Your task to perform on an android device: change the clock display to show seconds Image 0: 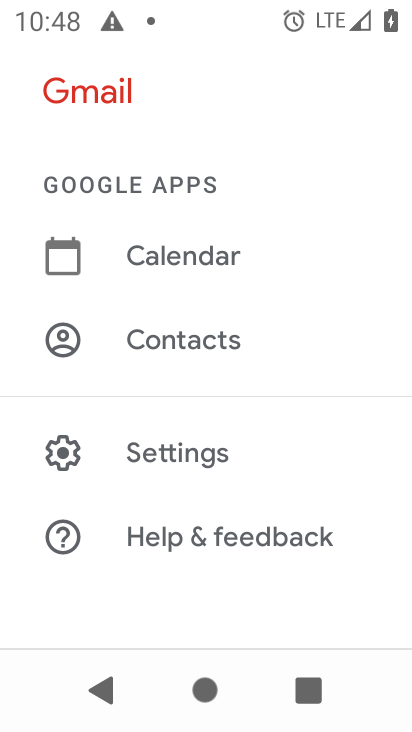
Step 0: press home button
Your task to perform on an android device: change the clock display to show seconds Image 1: 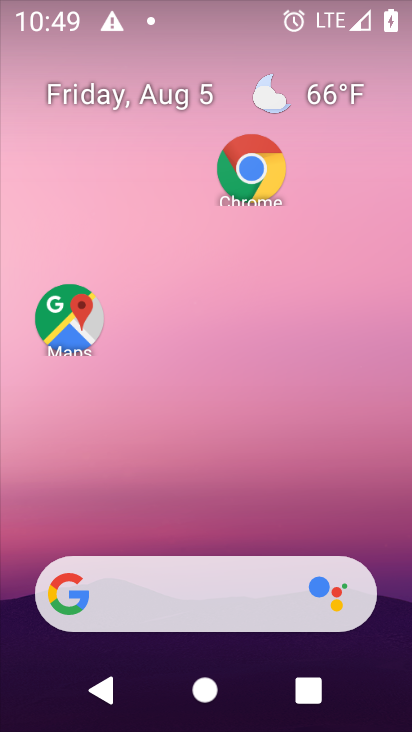
Step 1: drag from (206, 509) to (169, 146)
Your task to perform on an android device: change the clock display to show seconds Image 2: 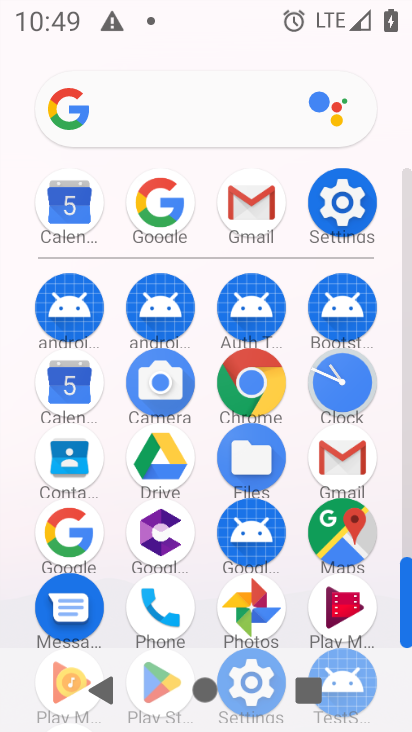
Step 2: click (348, 397)
Your task to perform on an android device: change the clock display to show seconds Image 3: 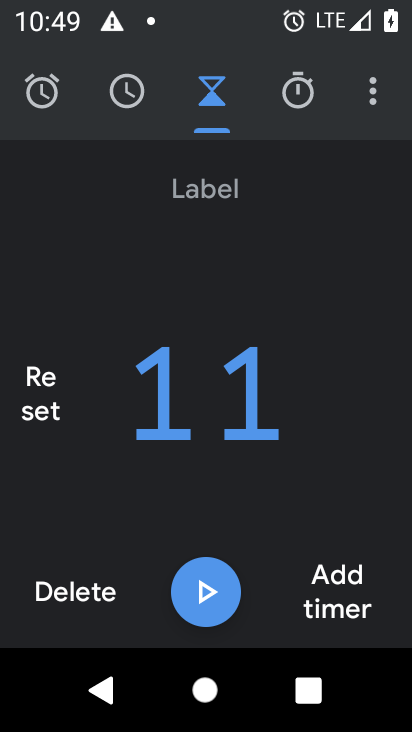
Step 3: click (379, 98)
Your task to perform on an android device: change the clock display to show seconds Image 4: 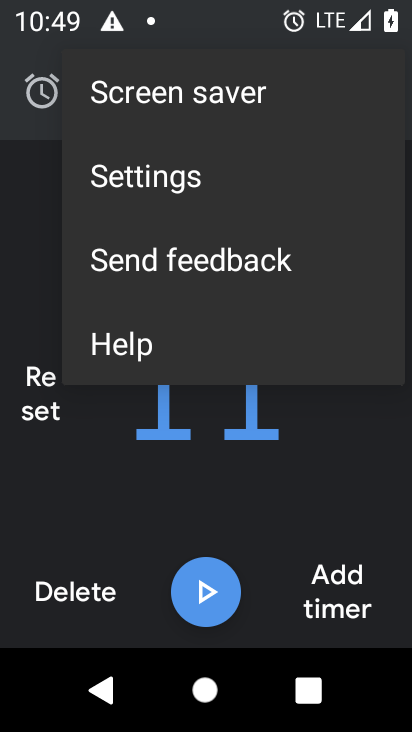
Step 4: click (220, 161)
Your task to perform on an android device: change the clock display to show seconds Image 5: 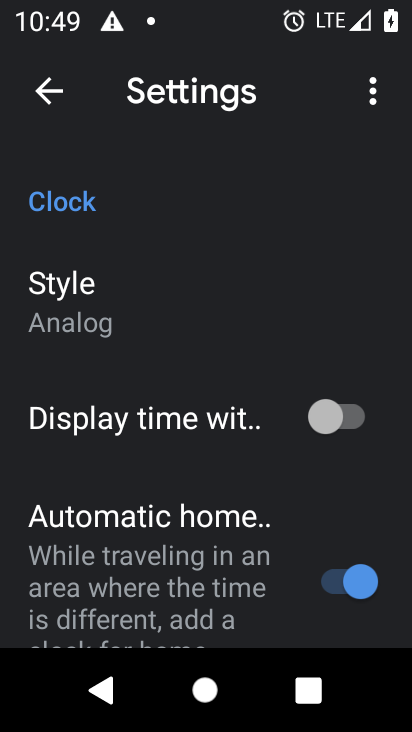
Step 5: click (337, 429)
Your task to perform on an android device: change the clock display to show seconds Image 6: 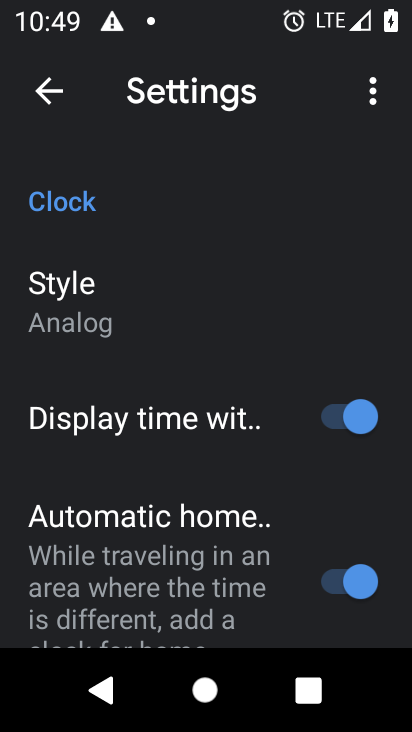
Step 6: task complete